Your task to perform on an android device: stop showing notifications on the lock screen Image 0: 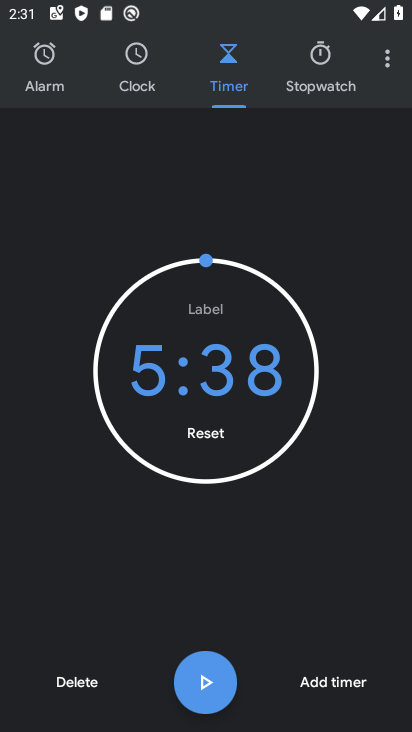
Step 0: press home button
Your task to perform on an android device: stop showing notifications on the lock screen Image 1: 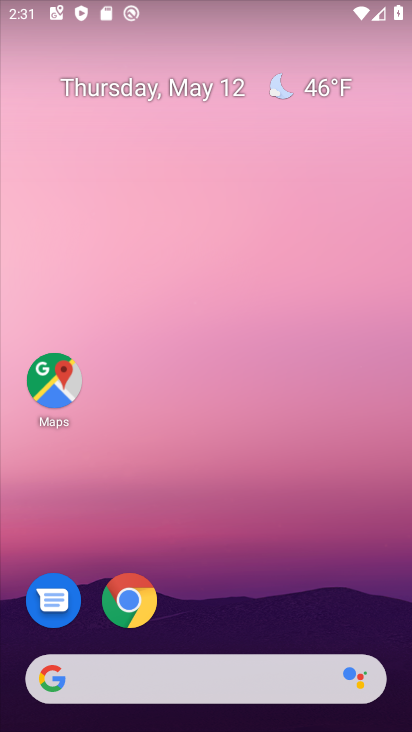
Step 1: press home button
Your task to perform on an android device: stop showing notifications on the lock screen Image 2: 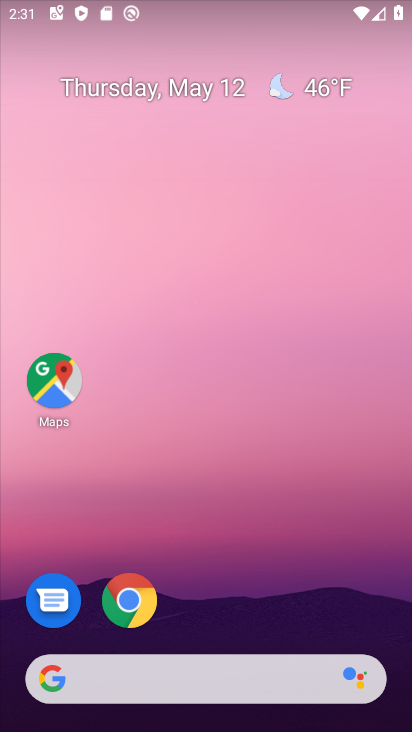
Step 2: drag from (258, 574) to (291, 16)
Your task to perform on an android device: stop showing notifications on the lock screen Image 3: 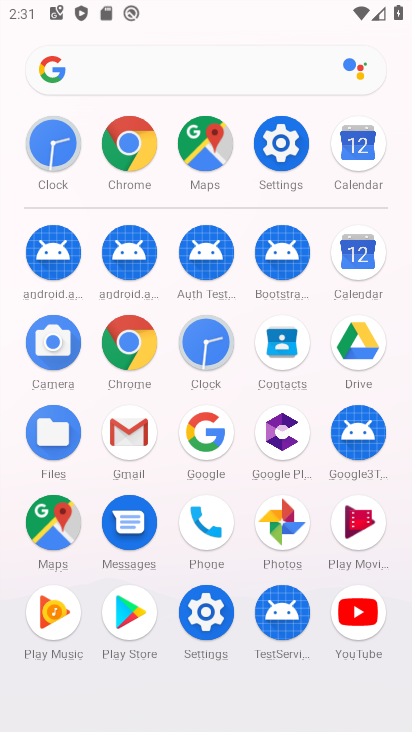
Step 3: click (279, 165)
Your task to perform on an android device: stop showing notifications on the lock screen Image 4: 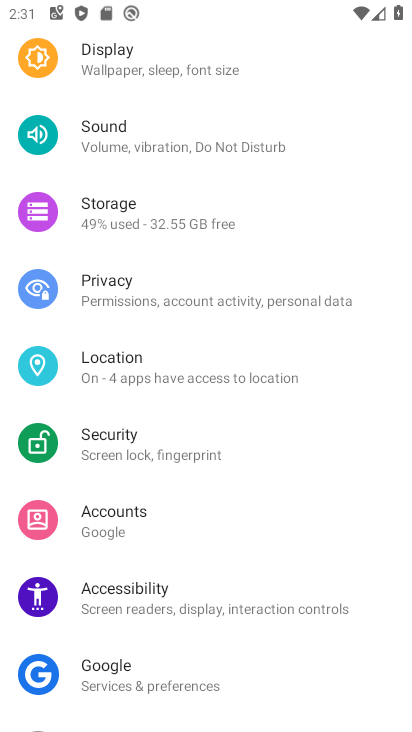
Step 4: drag from (186, 140) to (191, 599)
Your task to perform on an android device: stop showing notifications on the lock screen Image 5: 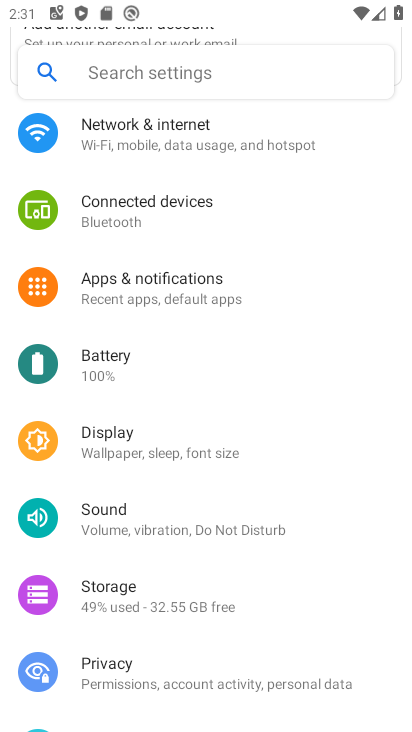
Step 5: click (194, 289)
Your task to perform on an android device: stop showing notifications on the lock screen Image 6: 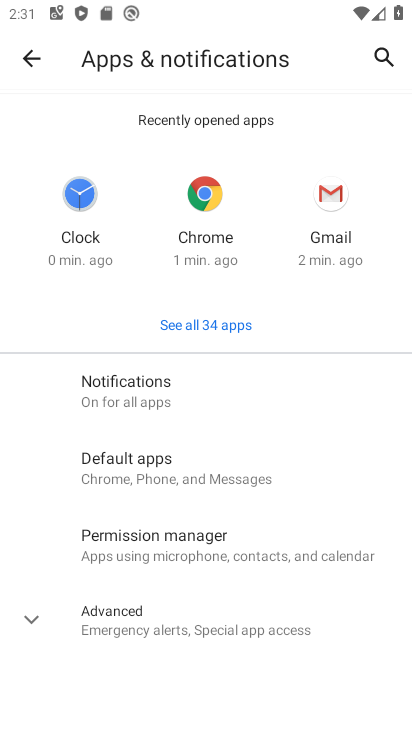
Step 6: click (150, 408)
Your task to perform on an android device: stop showing notifications on the lock screen Image 7: 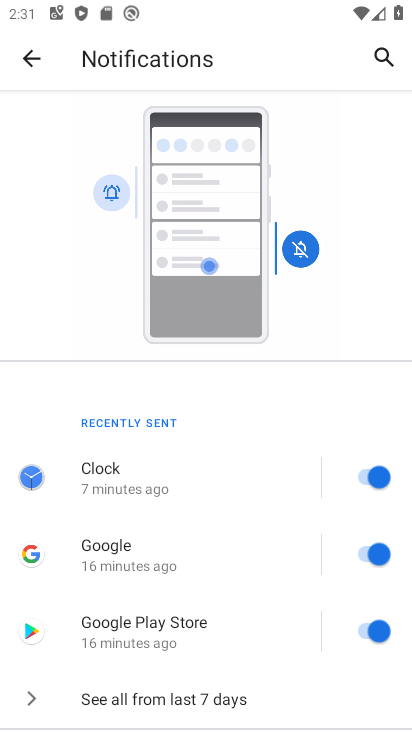
Step 7: drag from (153, 556) to (242, 157)
Your task to perform on an android device: stop showing notifications on the lock screen Image 8: 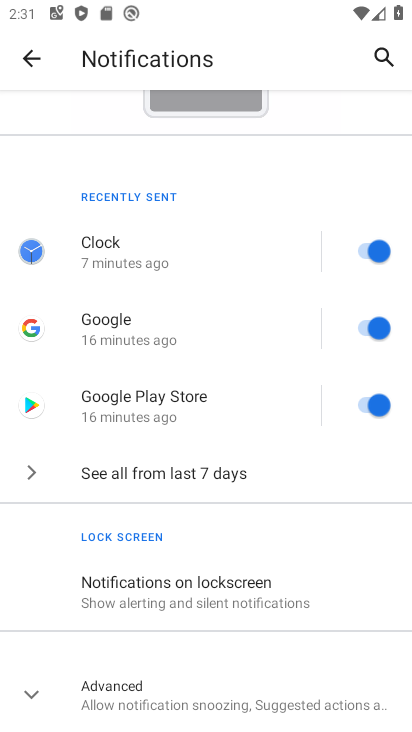
Step 8: click (236, 598)
Your task to perform on an android device: stop showing notifications on the lock screen Image 9: 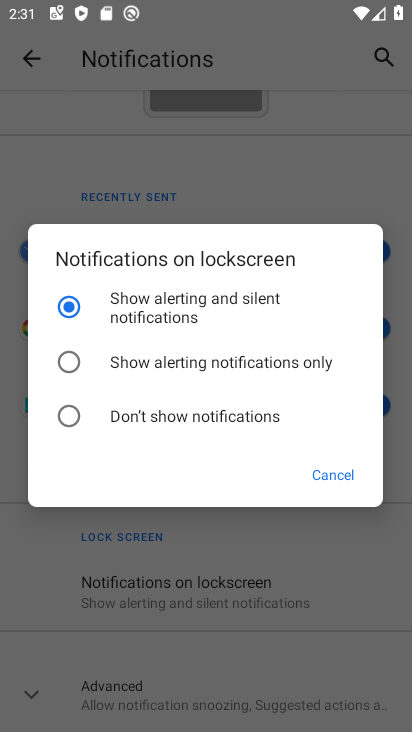
Step 9: click (116, 417)
Your task to perform on an android device: stop showing notifications on the lock screen Image 10: 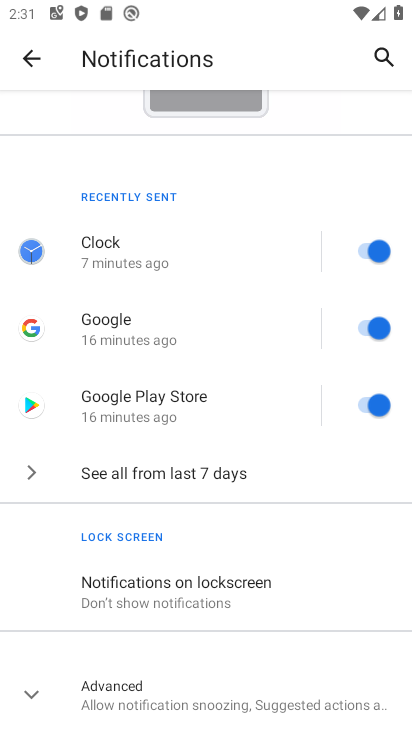
Step 10: task complete